Your task to perform on an android device: open a new tab in the chrome app Image 0: 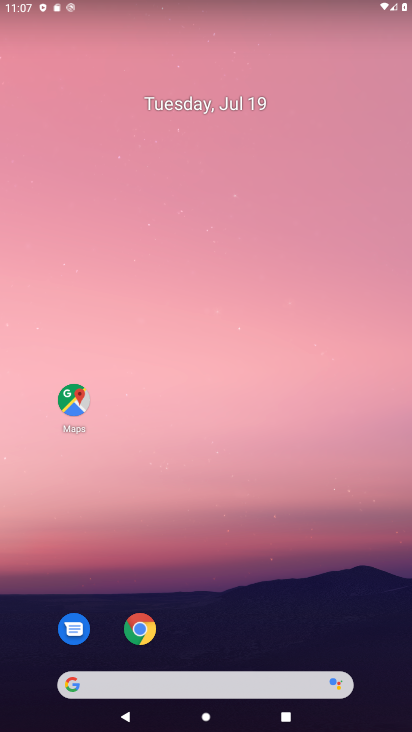
Step 0: drag from (358, 600) to (363, 87)
Your task to perform on an android device: open a new tab in the chrome app Image 1: 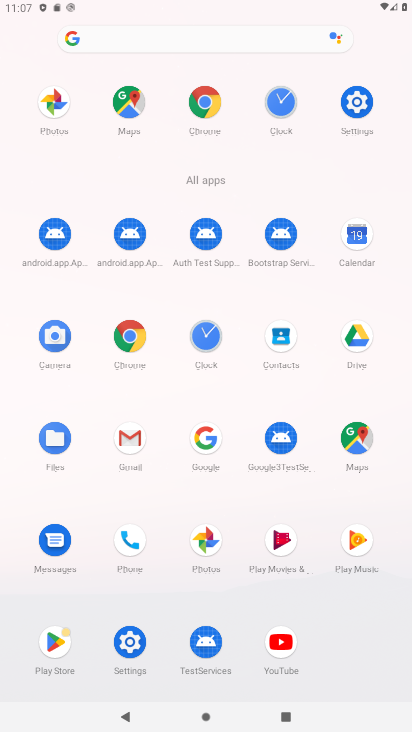
Step 1: click (136, 335)
Your task to perform on an android device: open a new tab in the chrome app Image 2: 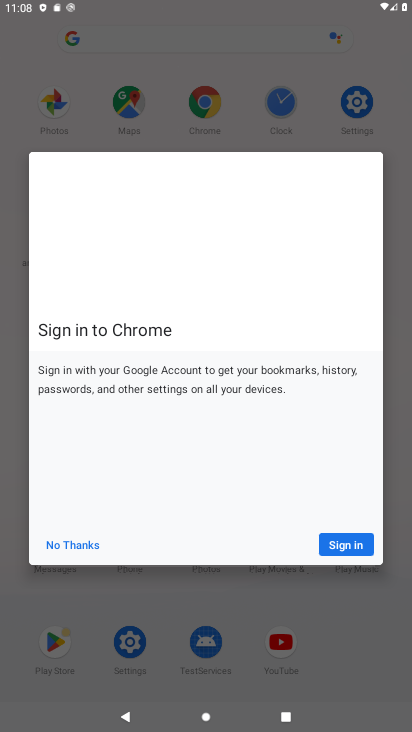
Step 2: click (65, 549)
Your task to perform on an android device: open a new tab in the chrome app Image 3: 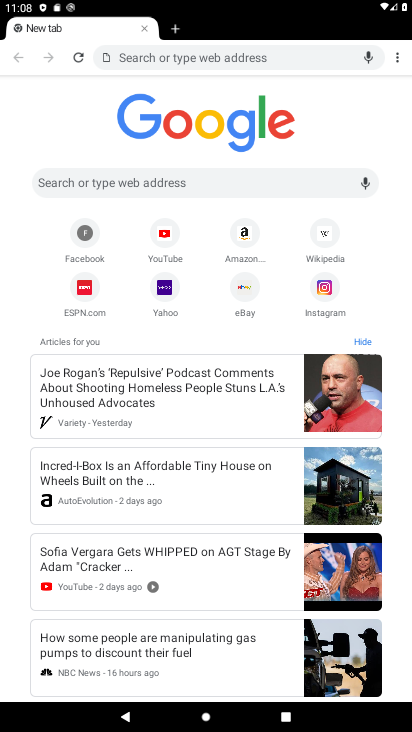
Step 3: click (398, 56)
Your task to perform on an android device: open a new tab in the chrome app Image 4: 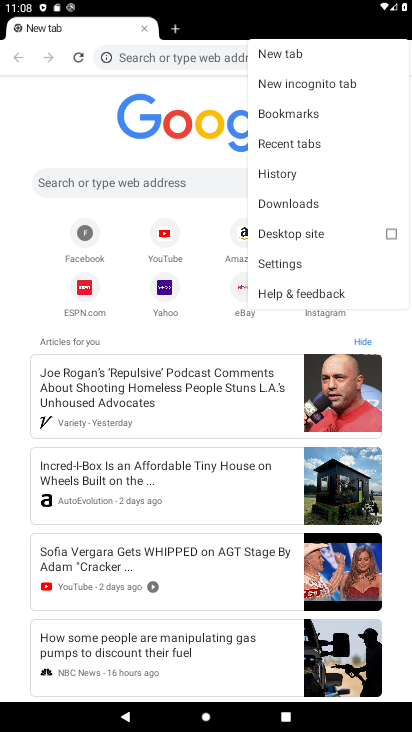
Step 4: click (309, 56)
Your task to perform on an android device: open a new tab in the chrome app Image 5: 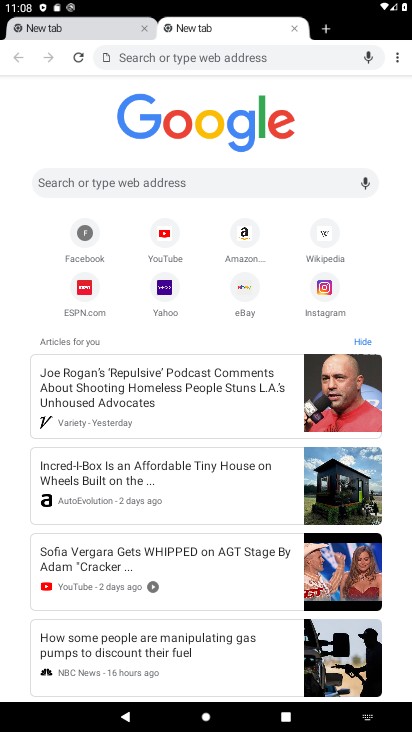
Step 5: task complete